Your task to perform on an android device: What is the news today? Image 0: 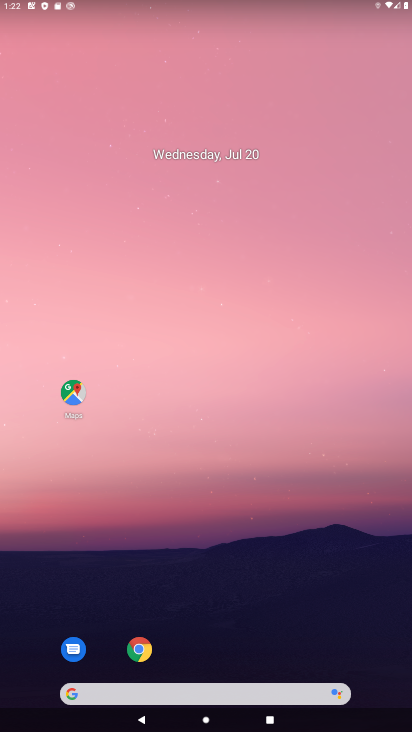
Step 0: click (134, 642)
Your task to perform on an android device: What is the news today? Image 1: 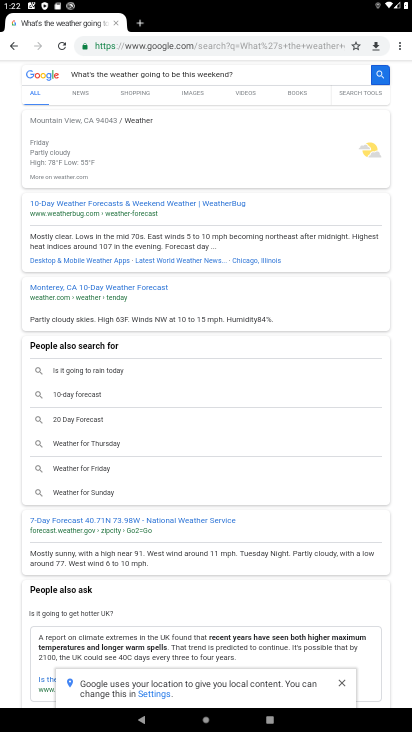
Step 1: click (228, 43)
Your task to perform on an android device: What is the news today? Image 2: 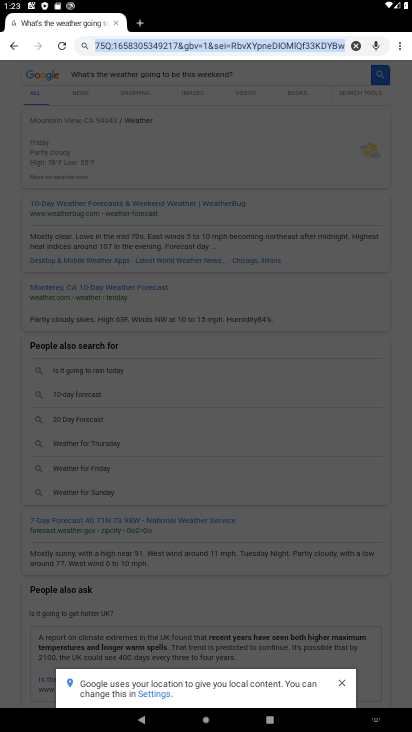
Step 2: type "What is the news today?"
Your task to perform on an android device: What is the news today? Image 3: 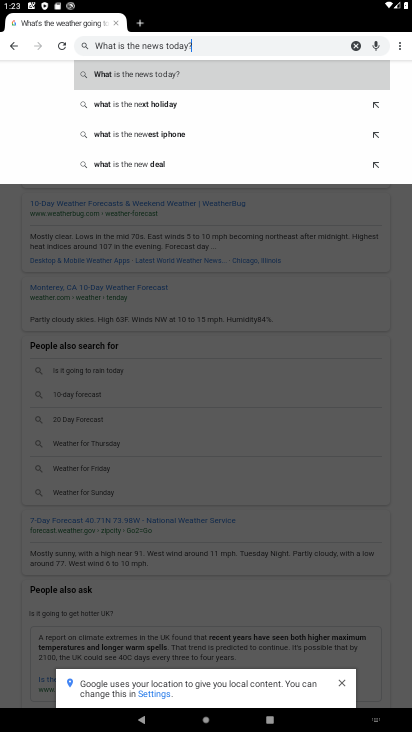
Step 3: type ""
Your task to perform on an android device: What is the news today? Image 4: 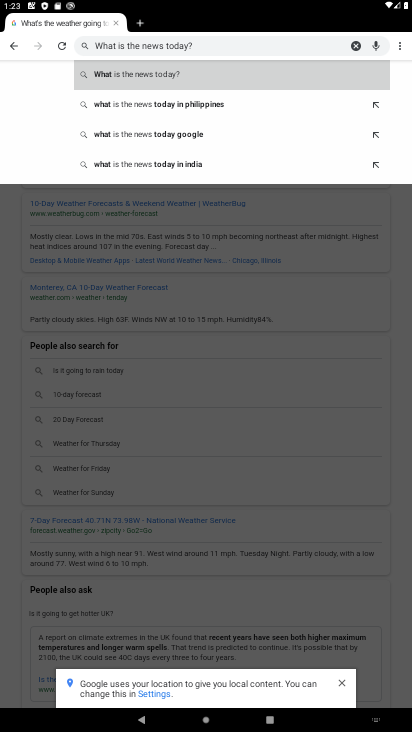
Step 4: click (138, 67)
Your task to perform on an android device: What is the news today? Image 5: 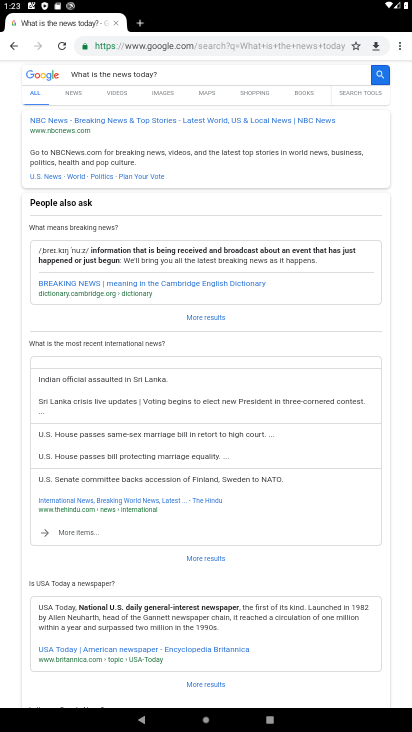
Step 5: task complete